Your task to perform on an android device: Open Reddit.com Image 0: 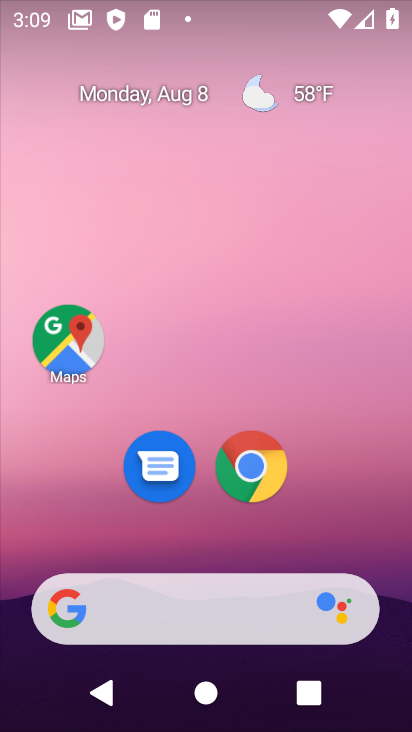
Step 0: drag from (237, 585) to (217, 20)
Your task to perform on an android device: Open Reddit.com Image 1: 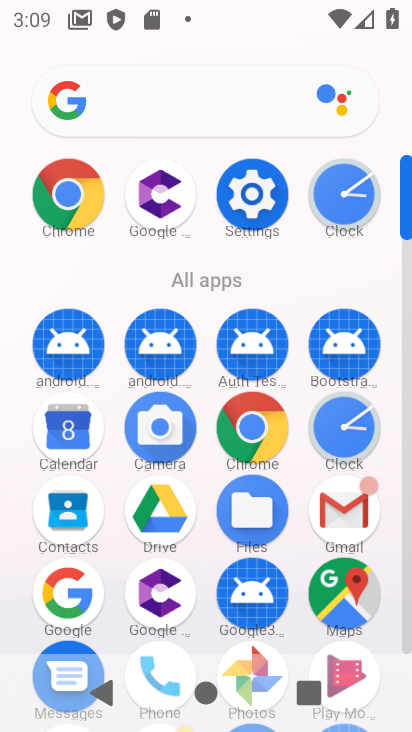
Step 1: click (73, 178)
Your task to perform on an android device: Open Reddit.com Image 2: 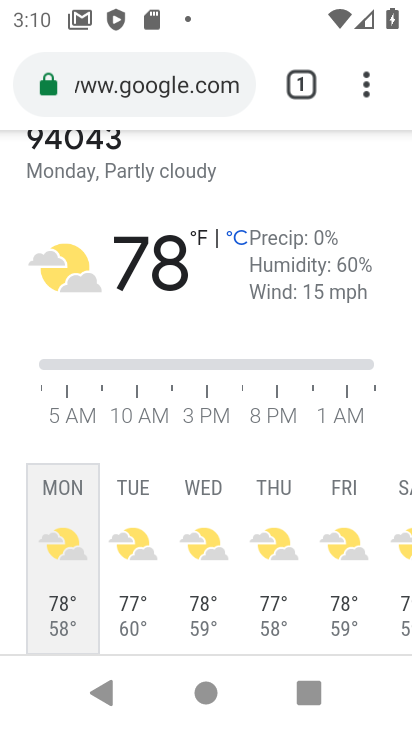
Step 2: click (380, 80)
Your task to perform on an android device: Open Reddit.com Image 3: 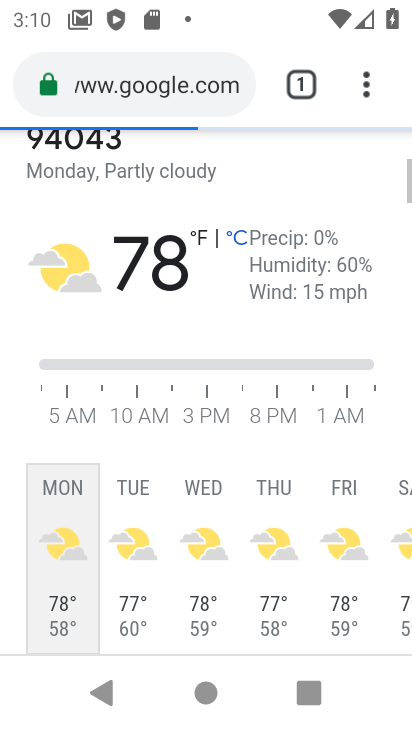
Step 3: click (368, 82)
Your task to perform on an android device: Open Reddit.com Image 4: 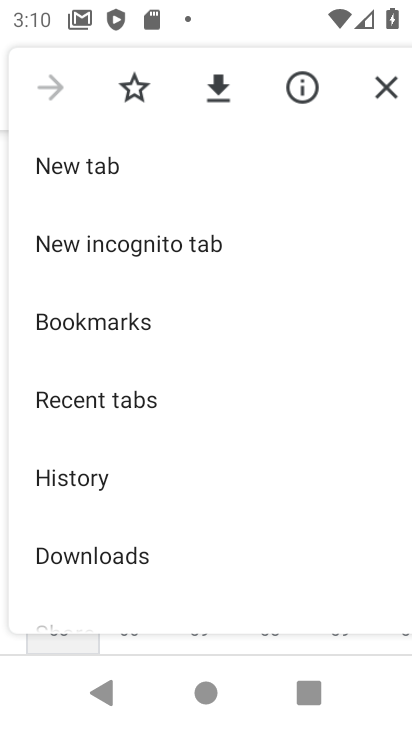
Step 4: click (134, 169)
Your task to perform on an android device: Open Reddit.com Image 5: 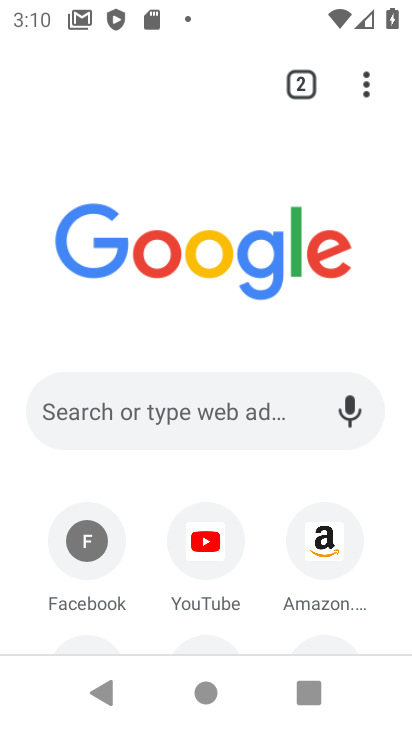
Step 5: click (277, 399)
Your task to perform on an android device: Open Reddit.com Image 6: 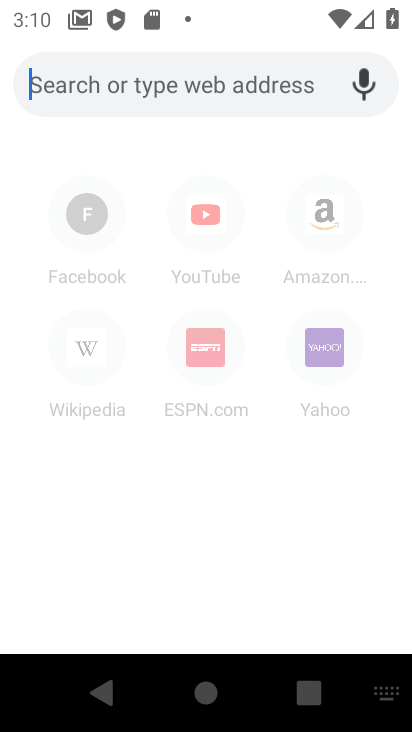
Step 6: type "Reddit.com "
Your task to perform on an android device: Open Reddit.com Image 7: 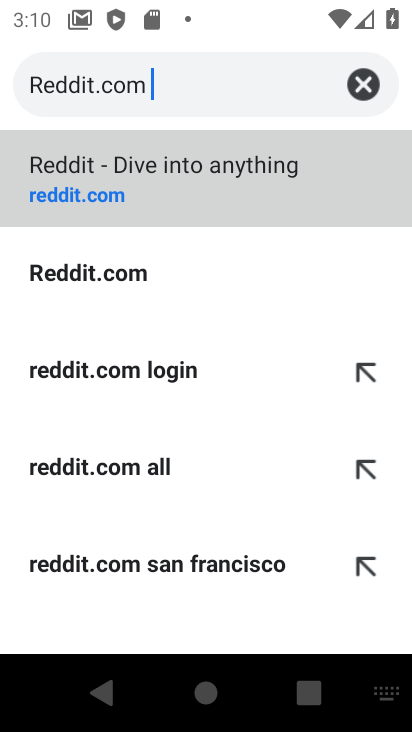
Step 7: click (168, 185)
Your task to perform on an android device: Open Reddit.com Image 8: 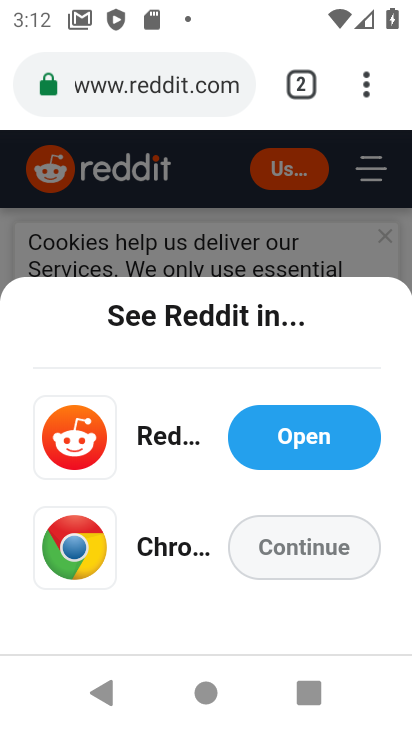
Step 8: task complete